Your task to perform on an android device: Turn on the flashlight Image 0: 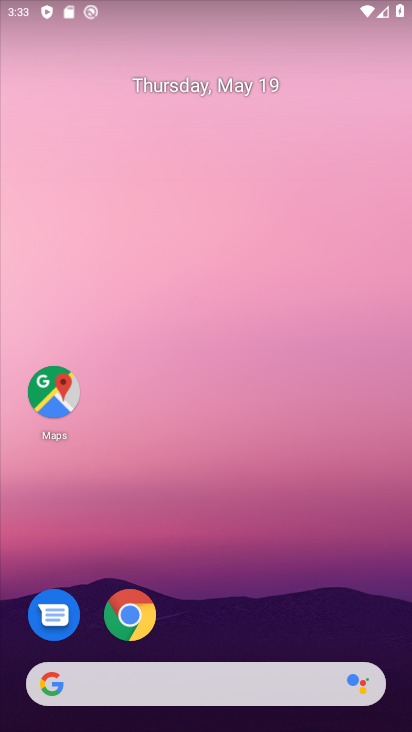
Step 0: drag from (275, 637) to (250, 127)
Your task to perform on an android device: Turn on the flashlight Image 1: 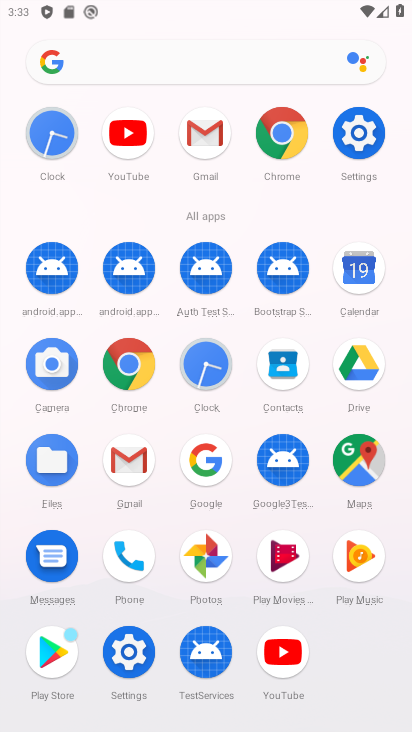
Step 1: task complete